Your task to perform on an android device: set the timer Image 0: 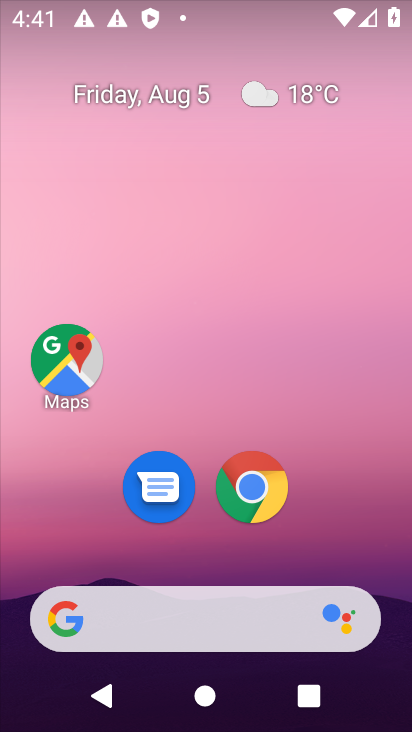
Step 0: drag from (228, 411) to (299, 17)
Your task to perform on an android device: set the timer Image 1: 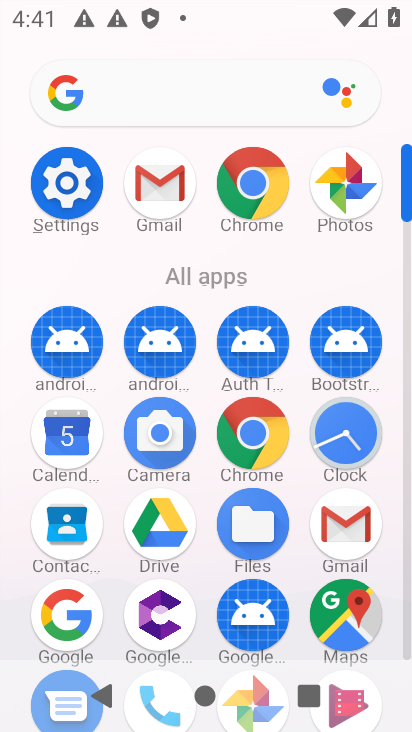
Step 1: drag from (219, 527) to (259, 121)
Your task to perform on an android device: set the timer Image 2: 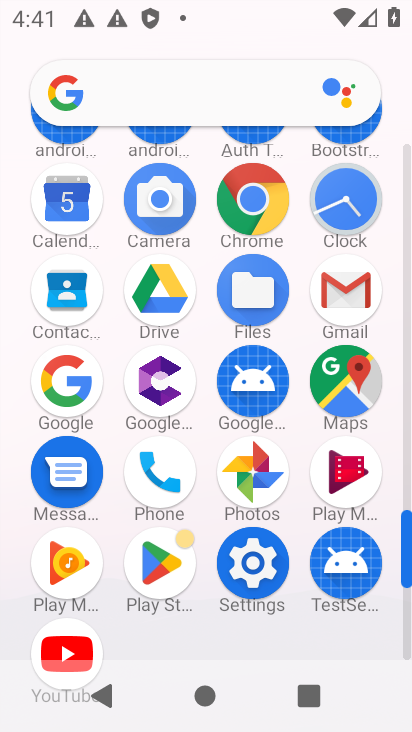
Step 2: click (342, 193)
Your task to perform on an android device: set the timer Image 3: 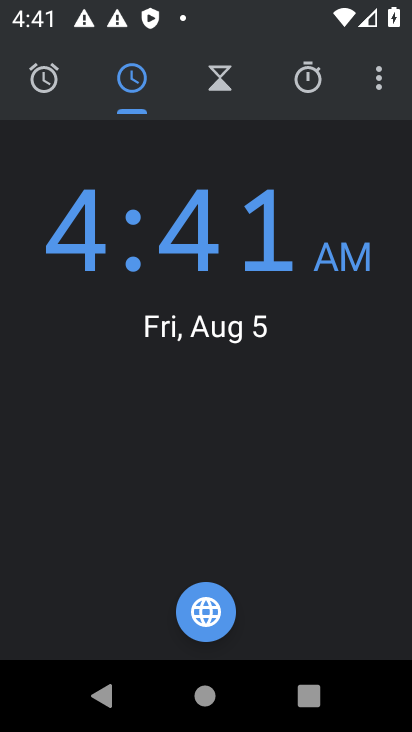
Step 3: click (292, 79)
Your task to perform on an android device: set the timer Image 4: 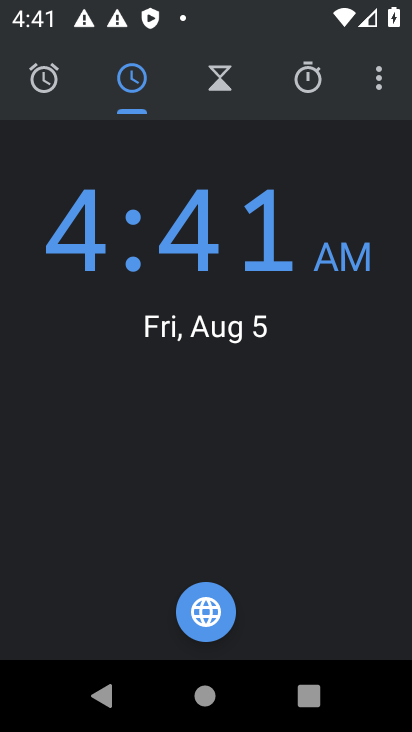
Step 4: click (308, 79)
Your task to perform on an android device: set the timer Image 5: 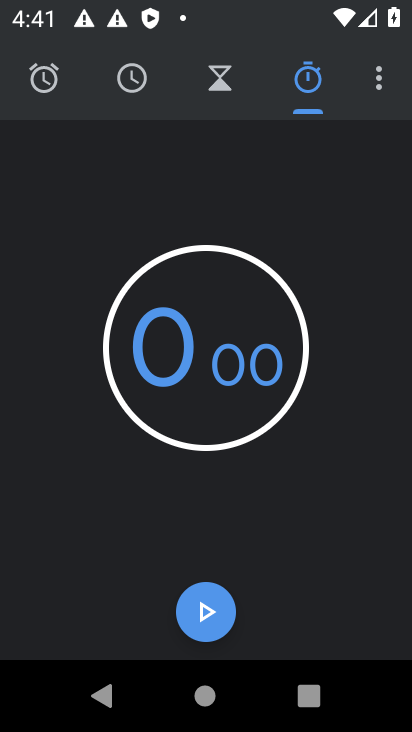
Step 5: task complete